Your task to perform on an android device: set the timer Image 0: 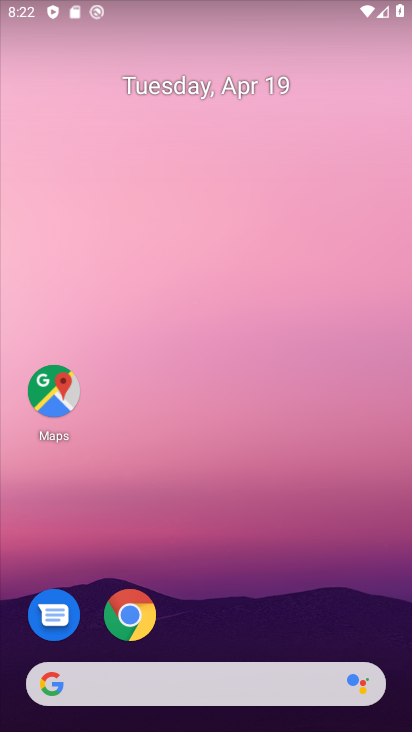
Step 0: drag from (368, 503) to (255, 45)
Your task to perform on an android device: set the timer Image 1: 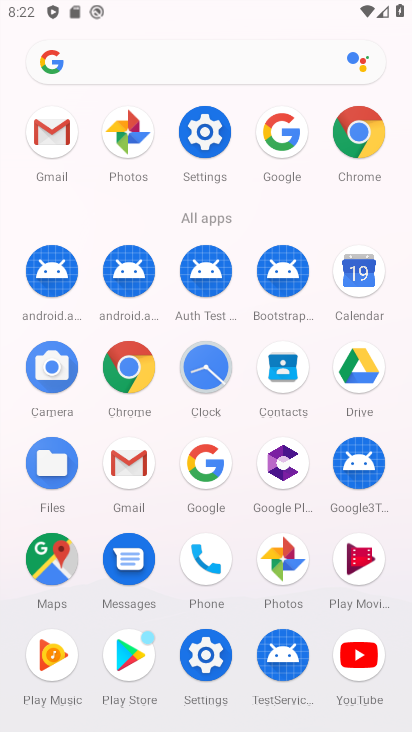
Step 1: drag from (13, 530) to (15, 260)
Your task to perform on an android device: set the timer Image 2: 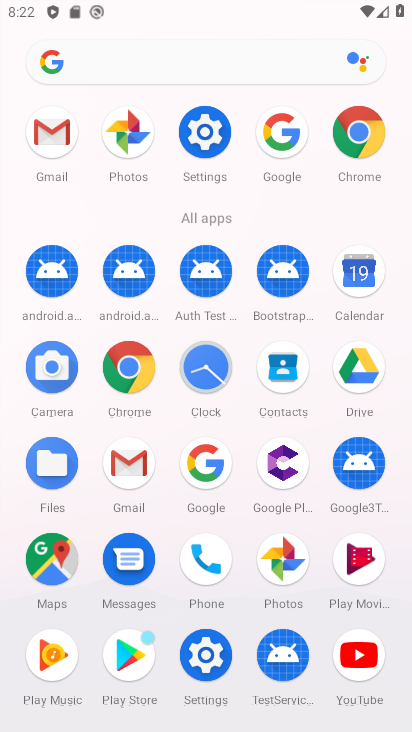
Step 2: click (208, 372)
Your task to perform on an android device: set the timer Image 3: 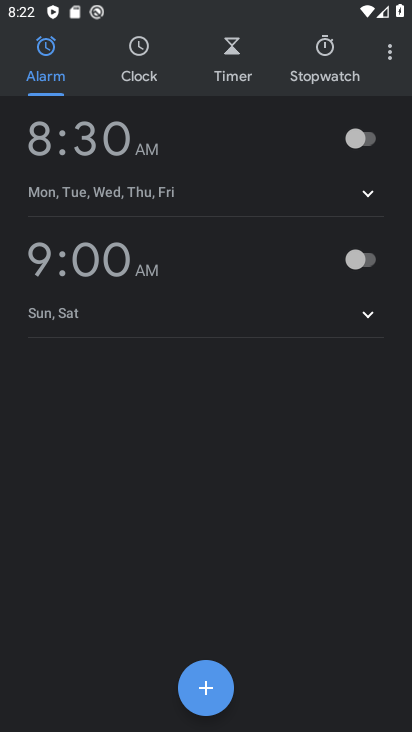
Step 3: click (254, 62)
Your task to perform on an android device: set the timer Image 4: 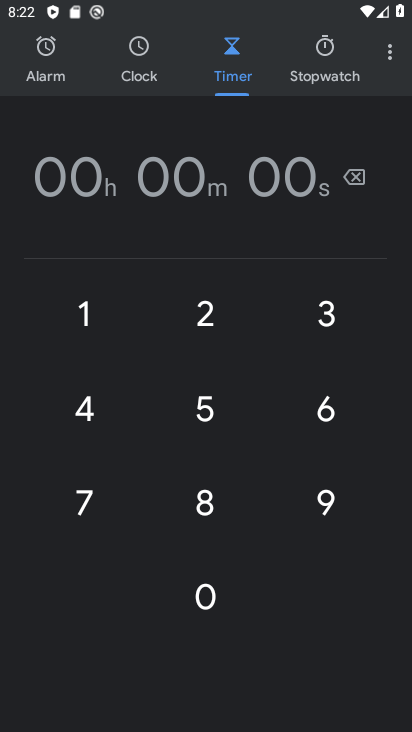
Step 4: click (214, 299)
Your task to perform on an android device: set the timer Image 5: 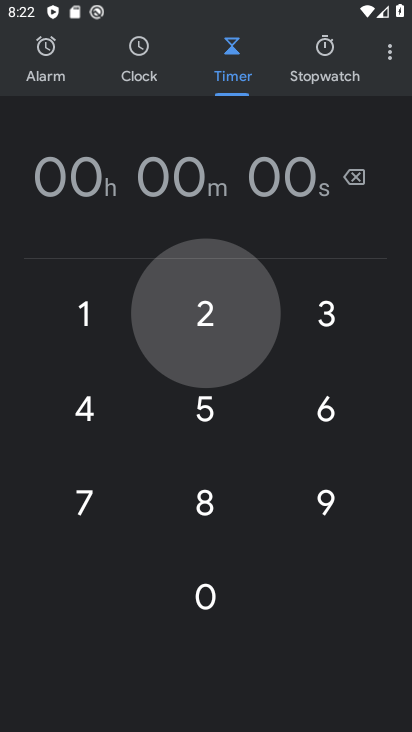
Step 5: click (192, 418)
Your task to perform on an android device: set the timer Image 6: 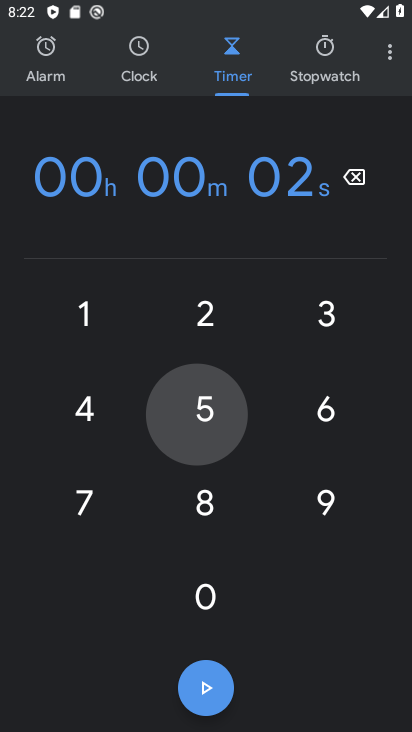
Step 6: click (97, 414)
Your task to perform on an android device: set the timer Image 7: 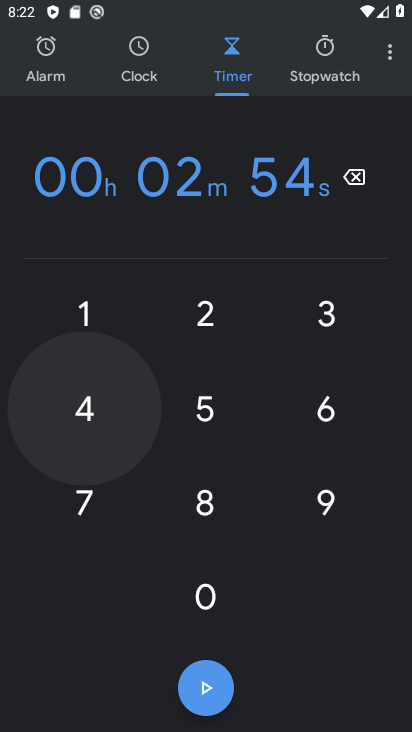
Step 7: click (99, 514)
Your task to perform on an android device: set the timer Image 8: 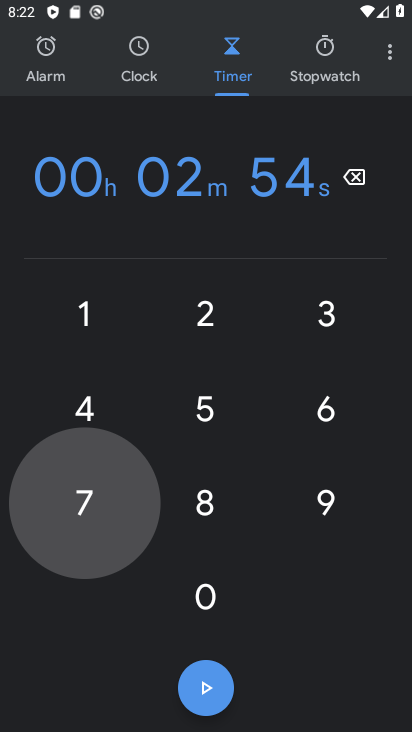
Step 8: click (190, 503)
Your task to perform on an android device: set the timer Image 9: 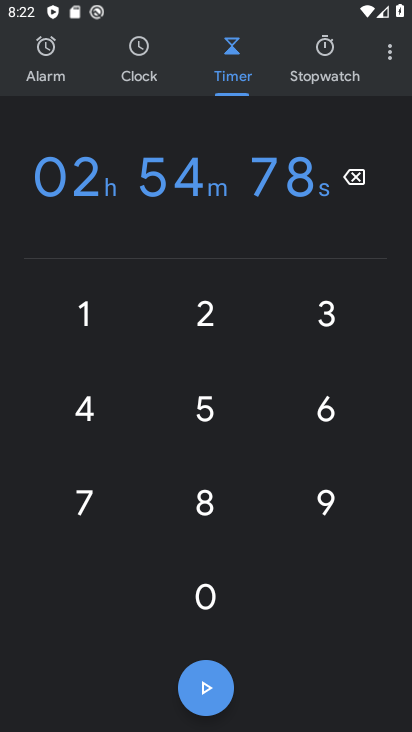
Step 9: click (196, 693)
Your task to perform on an android device: set the timer Image 10: 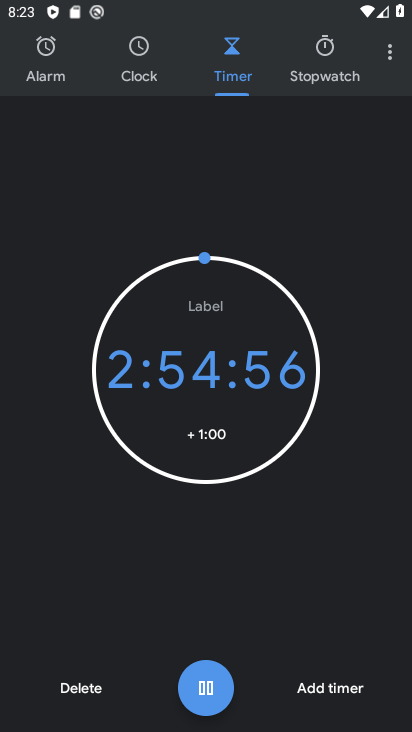
Step 10: task complete